Your task to perform on an android device: turn notification dots on Image 0: 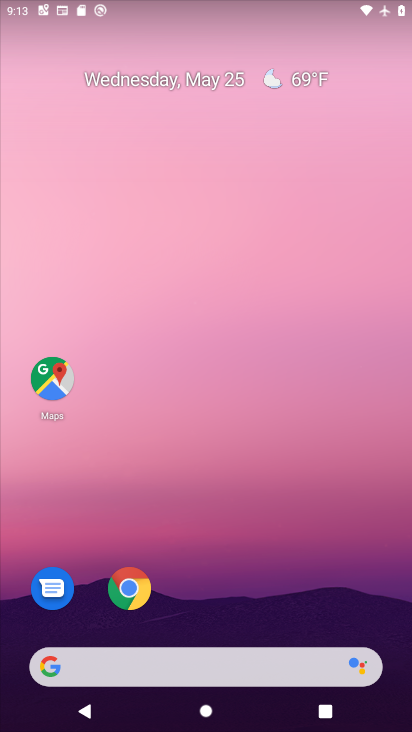
Step 0: drag from (370, 607) to (351, 187)
Your task to perform on an android device: turn notification dots on Image 1: 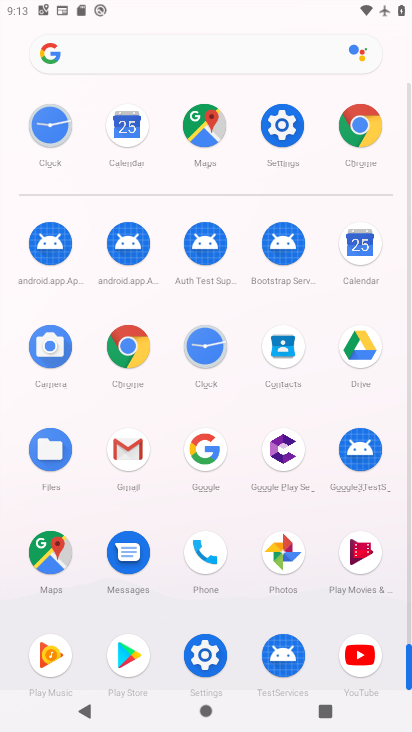
Step 1: click (281, 137)
Your task to perform on an android device: turn notification dots on Image 2: 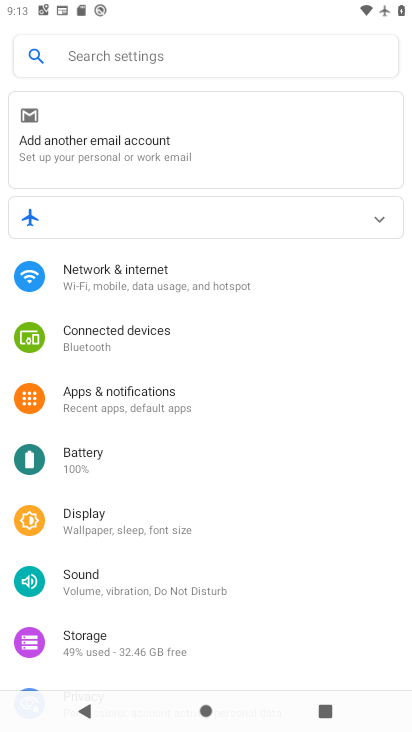
Step 2: drag from (333, 595) to (345, 449)
Your task to perform on an android device: turn notification dots on Image 3: 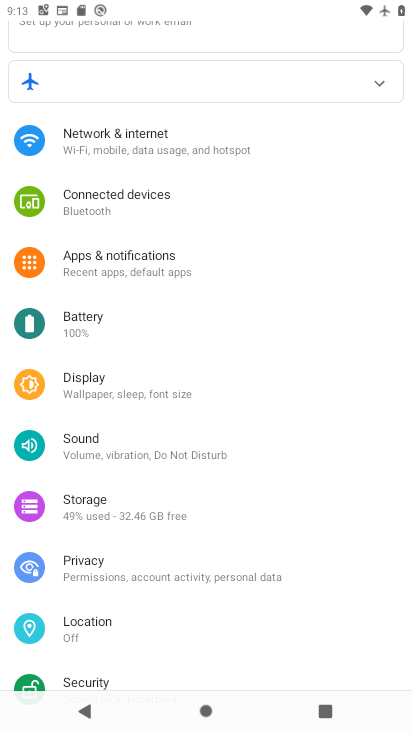
Step 3: drag from (364, 629) to (365, 488)
Your task to perform on an android device: turn notification dots on Image 4: 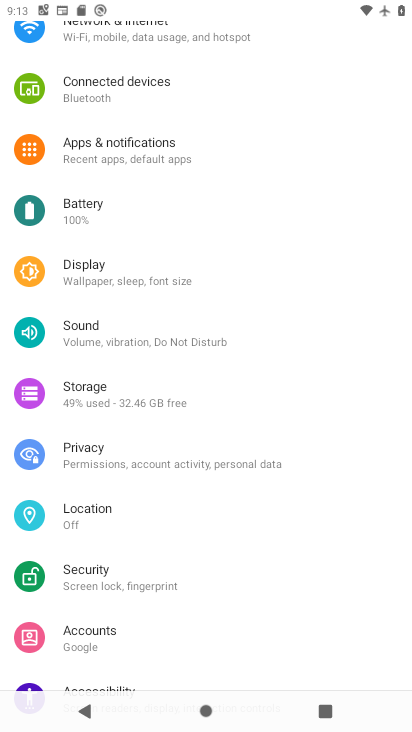
Step 4: drag from (359, 622) to (371, 516)
Your task to perform on an android device: turn notification dots on Image 5: 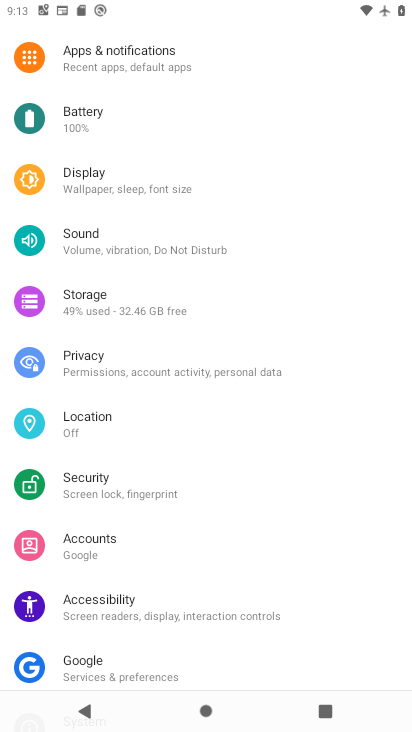
Step 5: drag from (362, 643) to (367, 504)
Your task to perform on an android device: turn notification dots on Image 6: 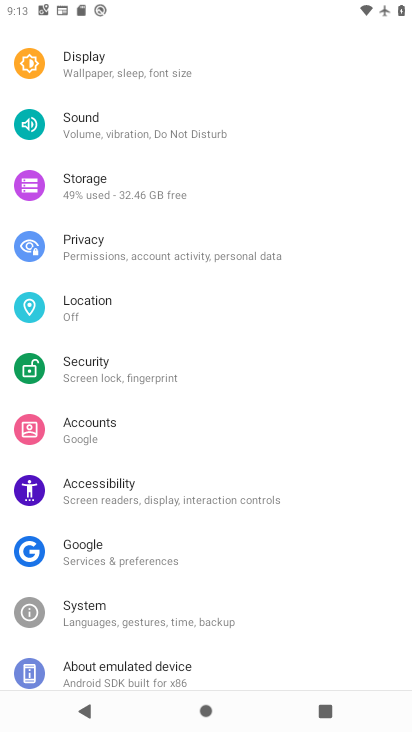
Step 6: drag from (371, 615) to (385, 426)
Your task to perform on an android device: turn notification dots on Image 7: 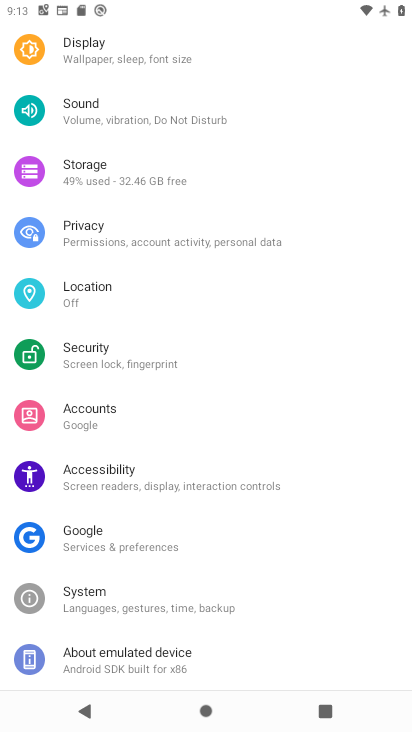
Step 7: drag from (376, 349) to (381, 462)
Your task to perform on an android device: turn notification dots on Image 8: 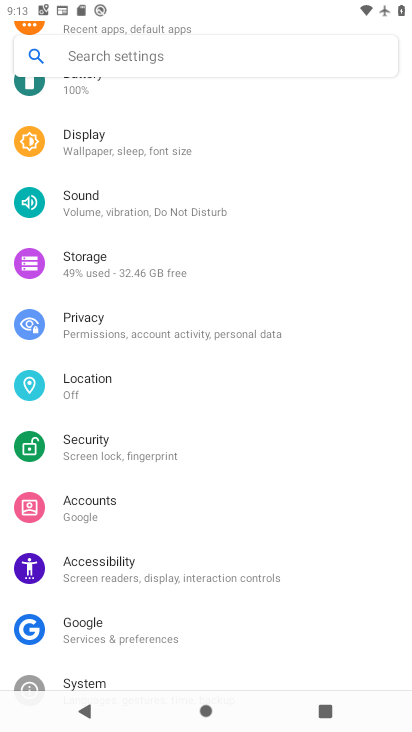
Step 8: drag from (375, 334) to (368, 460)
Your task to perform on an android device: turn notification dots on Image 9: 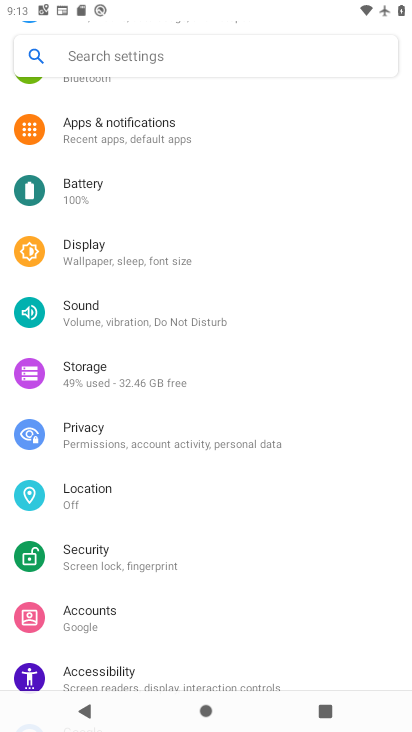
Step 9: drag from (367, 359) to (375, 472)
Your task to perform on an android device: turn notification dots on Image 10: 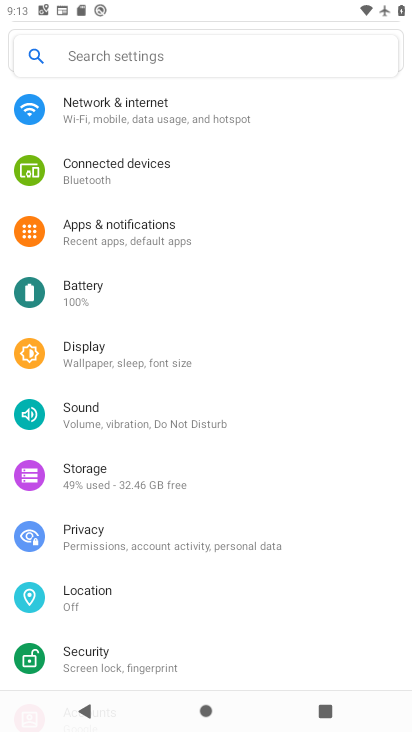
Step 10: drag from (378, 320) to (385, 430)
Your task to perform on an android device: turn notification dots on Image 11: 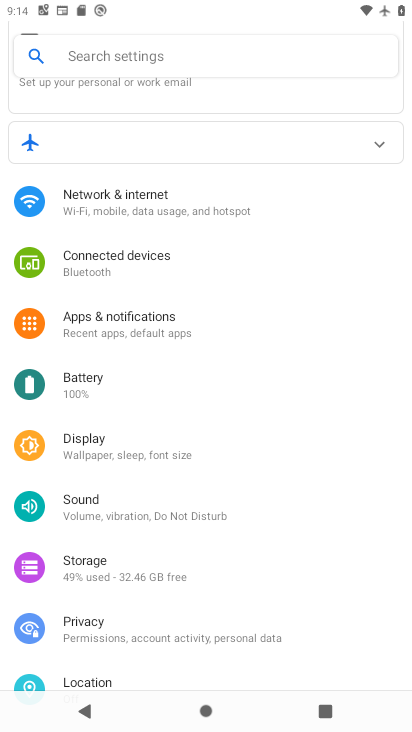
Step 11: drag from (387, 301) to (382, 407)
Your task to perform on an android device: turn notification dots on Image 12: 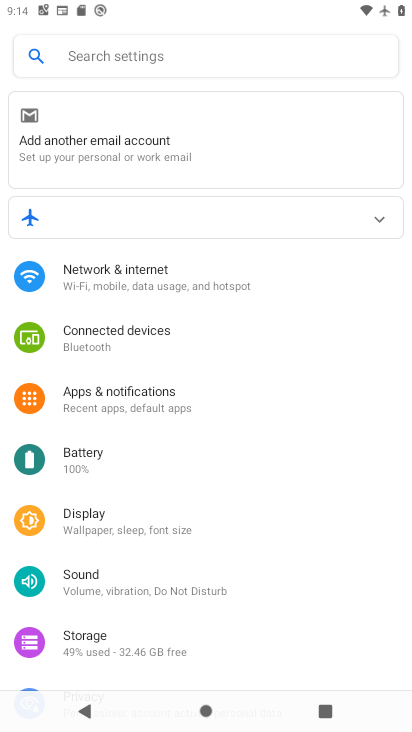
Step 12: drag from (352, 303) to (340, 438)
Your task to perform on an android device: turn notification dots on Image 13: 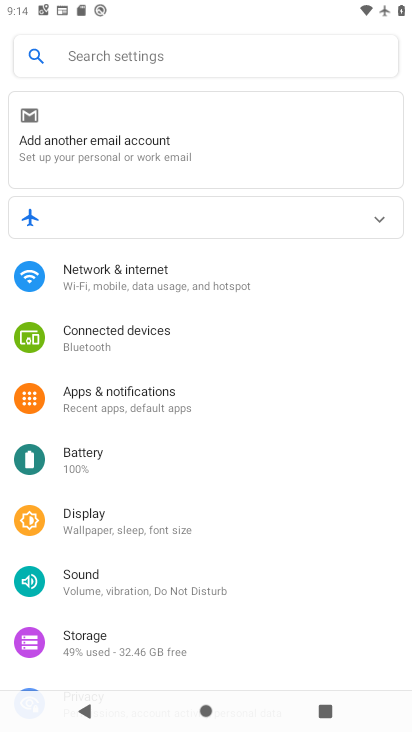
Step 13: click (131, 400)
Your task to perform on an android device: turn notification dots on Image 14: 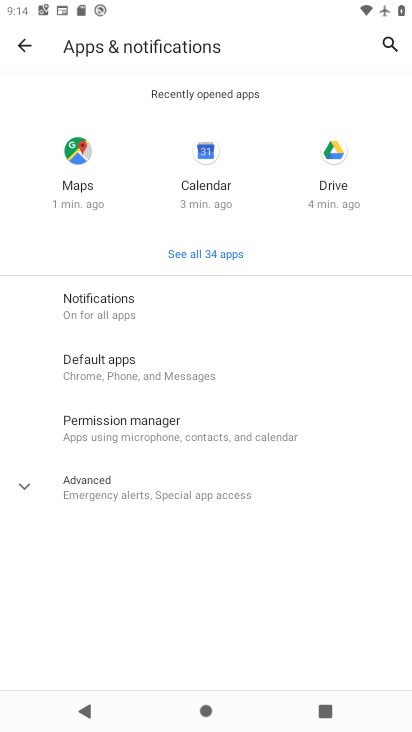
Step 14: click (175, 315)
Your task to perform on an android device: turn notification dots on Image 15: 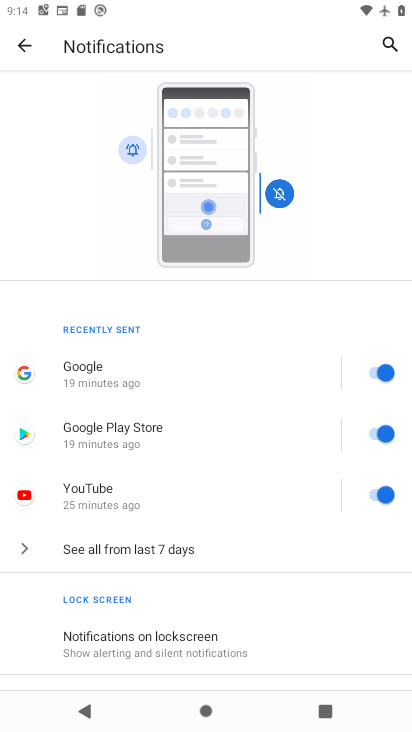
Step 15: drag from (279, 526) to (286, 402)
Your task to perform on an android device: turn notification dots on Image 16: 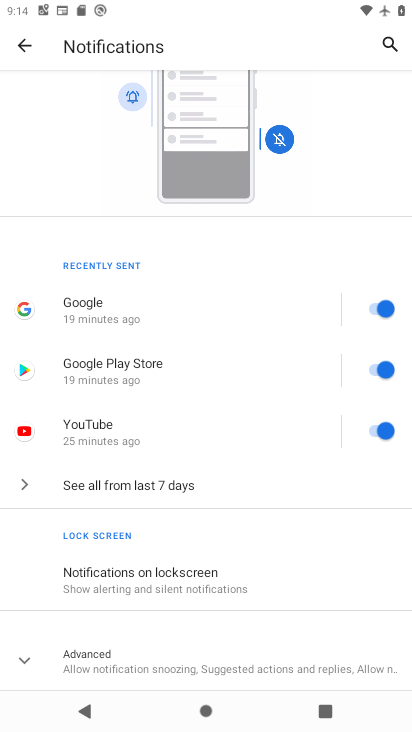
Step 16: click (245, 647)
Your task to perform on an android device: turn notification dots on Image 17: 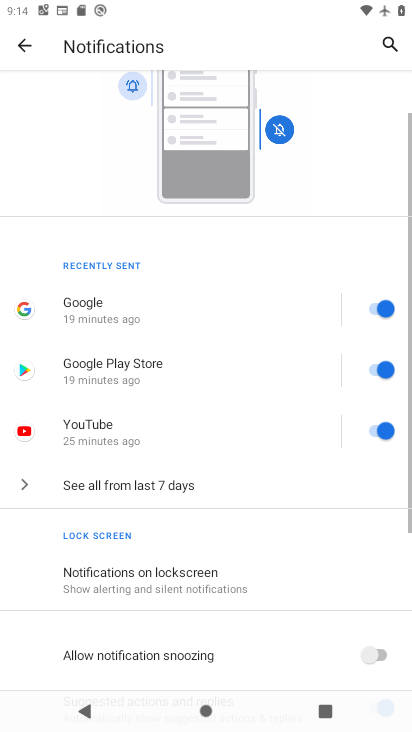
Step 17: drag from (287, 607) to (296, 464)
Your task to perform on an android device: turn notification dots on Image 18: 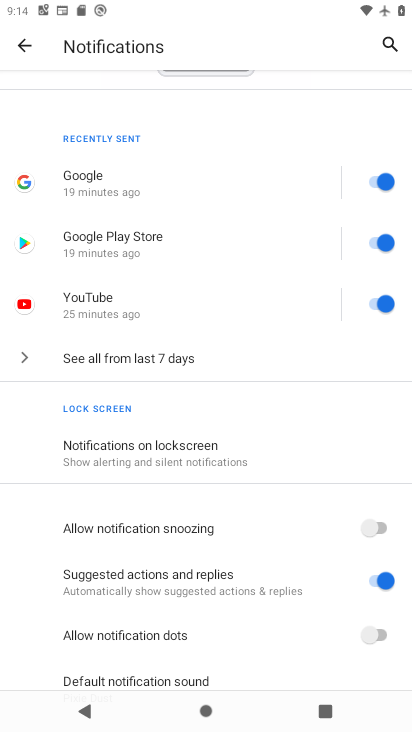
Step 18: drag from (294, 620) to (300, 505)
Your task to perform on an android device: turn notification dots on Image 19: 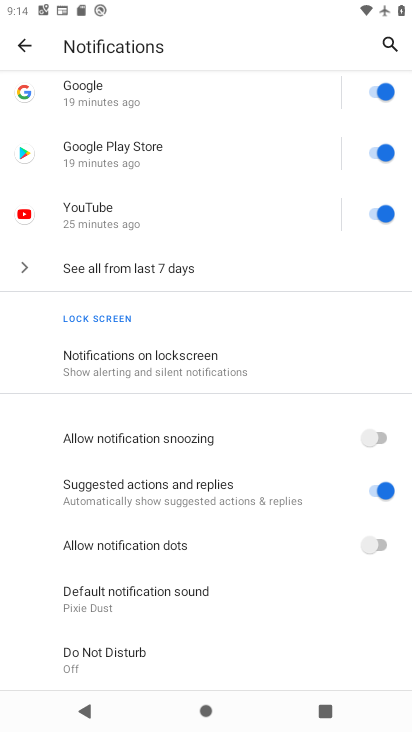
Step 19: click (367, 540)
Your task to perform on an android device: turn notification dots on Image 20: 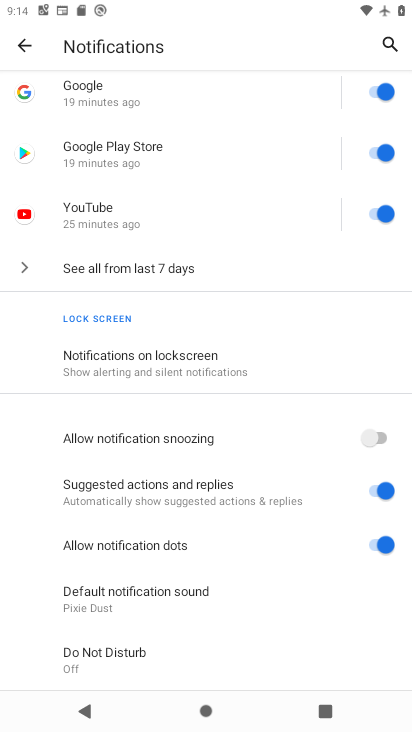
Step 20: task complete